Your task to perform on an android device: create a new album in the google photos Image 0: 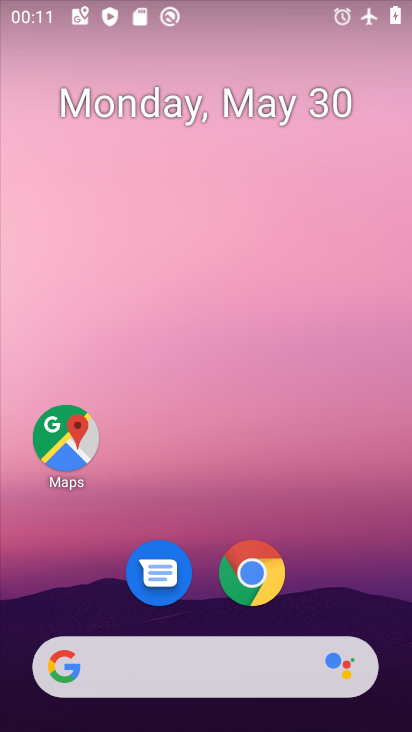
Step 0: drag from (340, 506) to (231, 14)
Your task to perform on an android device: create a new album in the google photos Image 1: 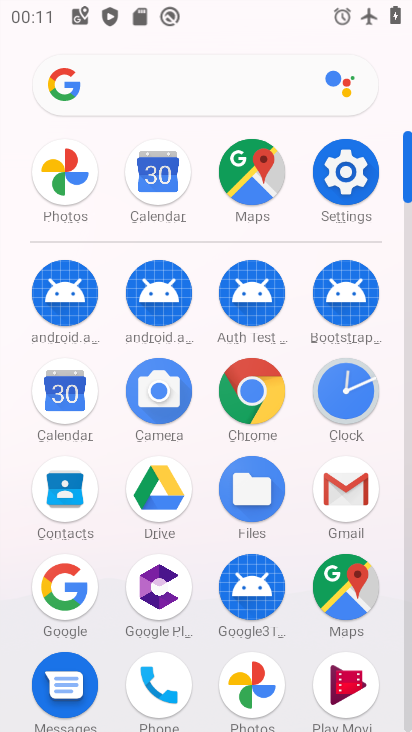
Step 1: click (73, 183)
Your task to perform on an android device: create a new album in the google photos Image 2: 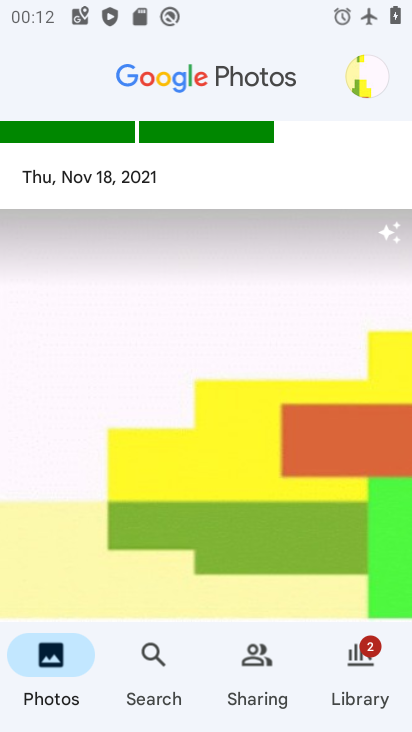
Step 2: click (362, 659)
Your task to perform on an android device: create a new album in the google photos Image 3: 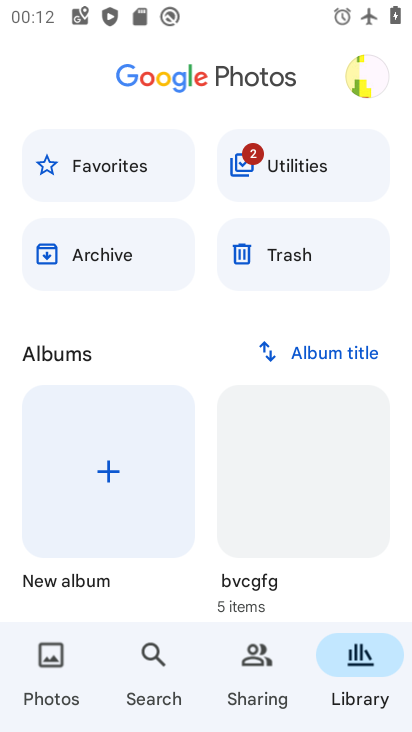
Step 3: click (84, 472)
Your task to perform on an android device: create a new album in the google photos Image 4: 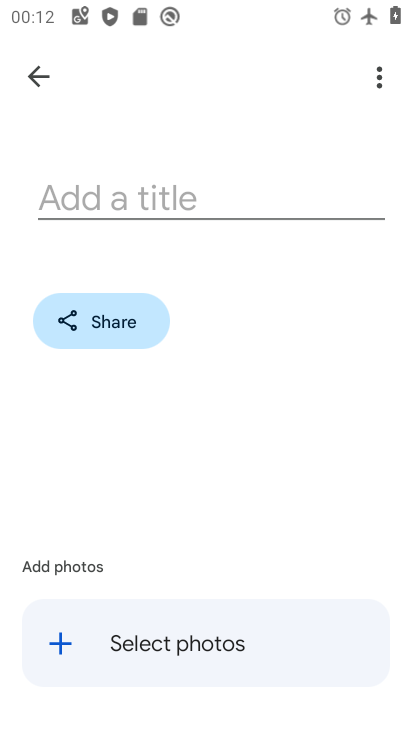
Step 4: click (189, 184)
Your task to perform on an android device: create a new album in the google photos Image 5: 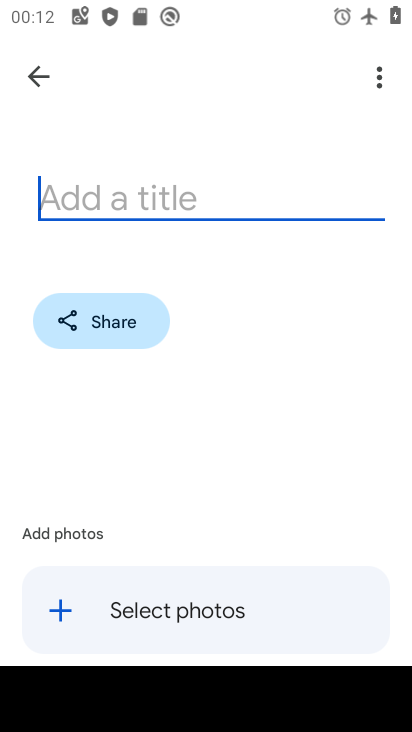
Step 5: type "hvfgf"
Your task to perform on an android device: create a new album in the google photos Image 6: 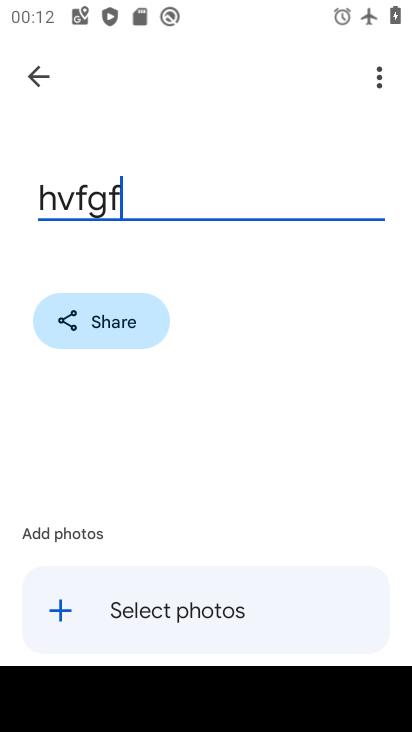
Step 6: type ""
Your task to perform on an android device: create a new album in the google photos Image 7: 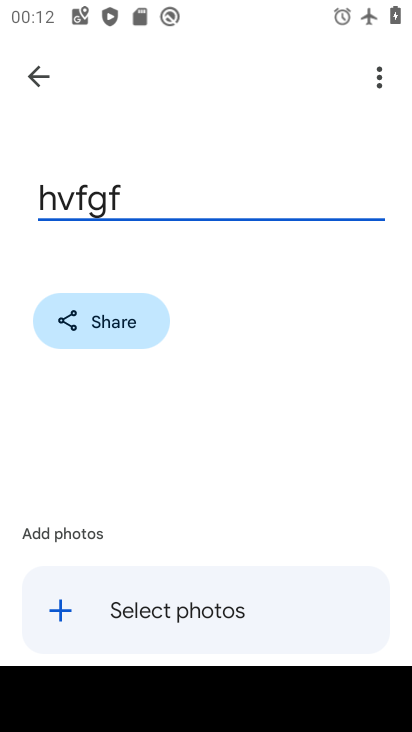
Step 7: click (214, 603)
Your task to perform on an android device: create a new album in the google photos Image 8: 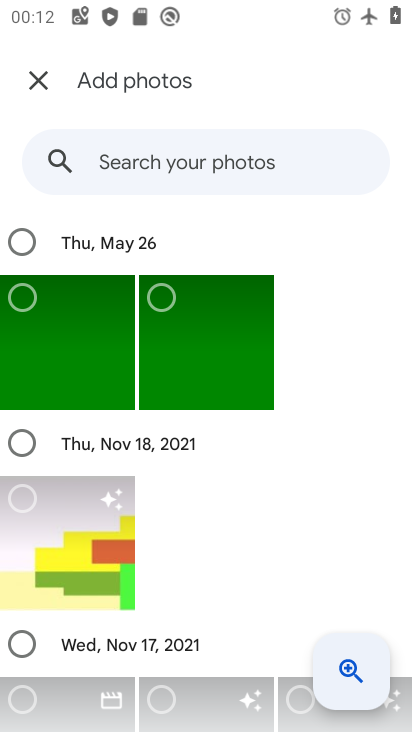
Step 8: click (54, 355)
Your task to perform on an android device: create a new album in the google photos Image 9: 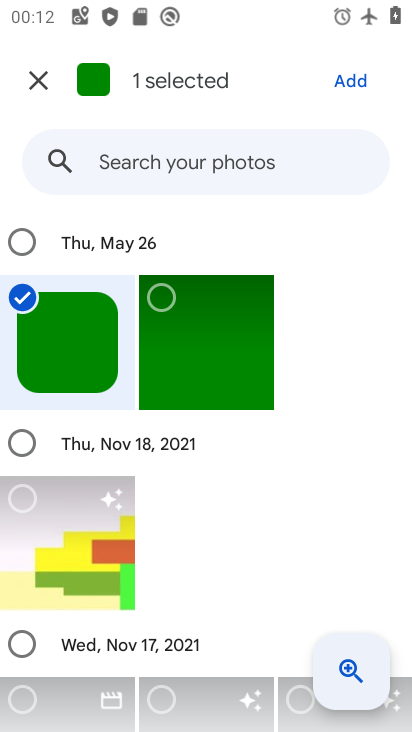
Step 9: click (83, 581)
Your task to perform on an android device: create a new album in the google photos Image 10: 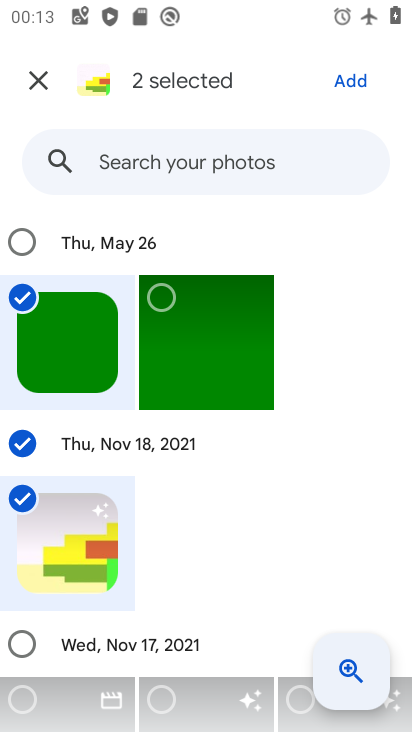
Step 10: click (344, 75)
Your task to perform on an android device: create a new album in the google photos Image 11: 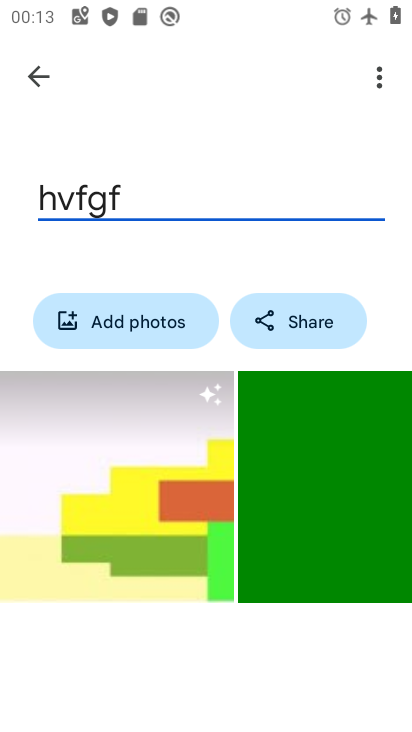
Step 11: task complete